Your task to perform on an android device: change alarm snooze length Image 0: 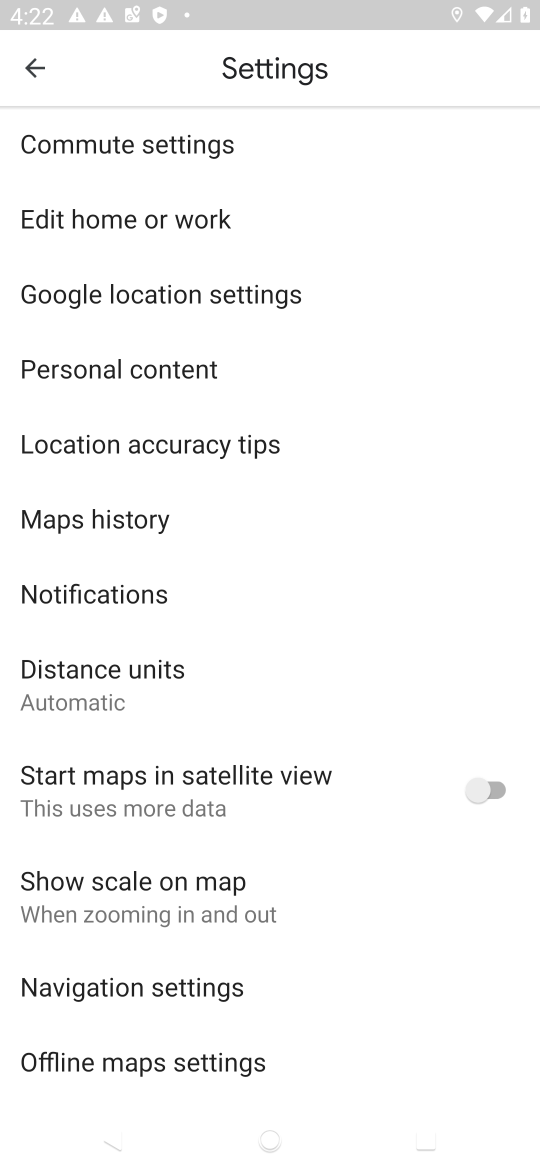
Step 0: press home button
Your task to perform on an android device: change alarm snooze length Image 1: 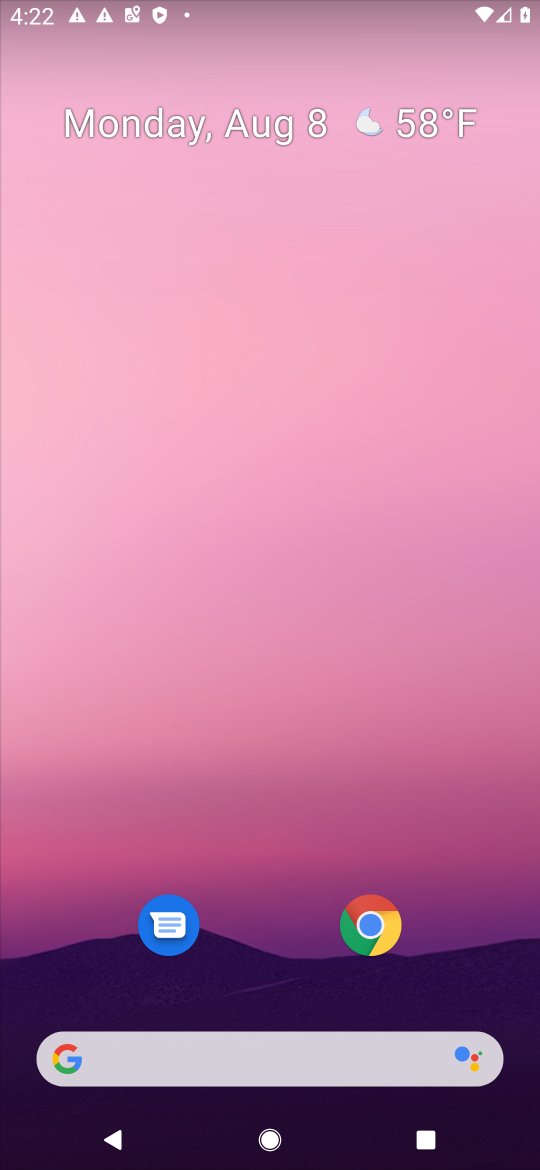
Step 1: drag from (274, 1010) to (195, 61)
Your task to perform on an android device: change alarm snooze length Image 2: 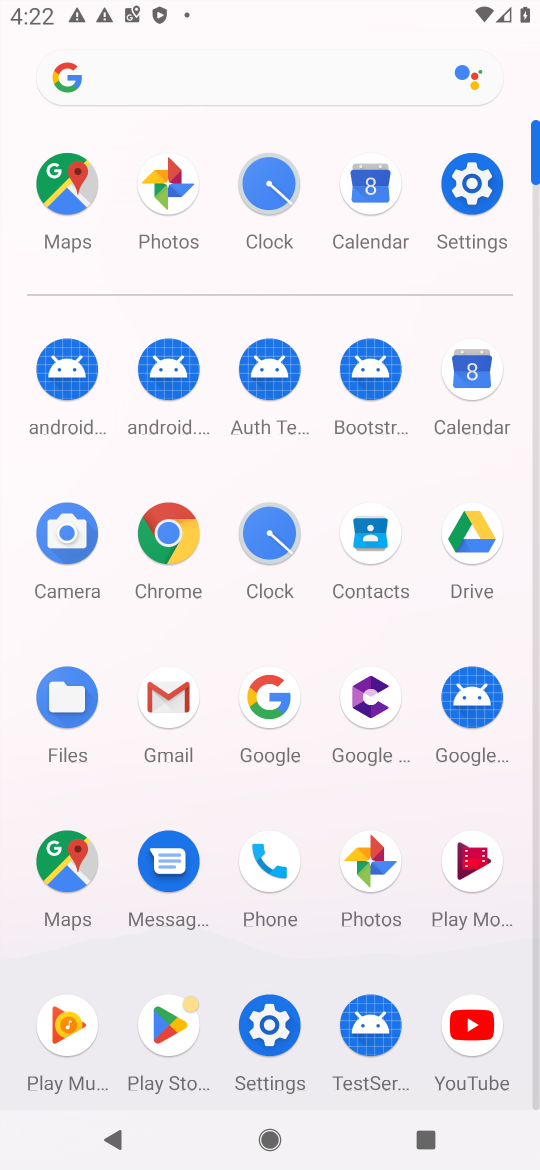
Step 2: click (269, 539)
Your task to perform on an android device: change alarm snooze length Image 3: 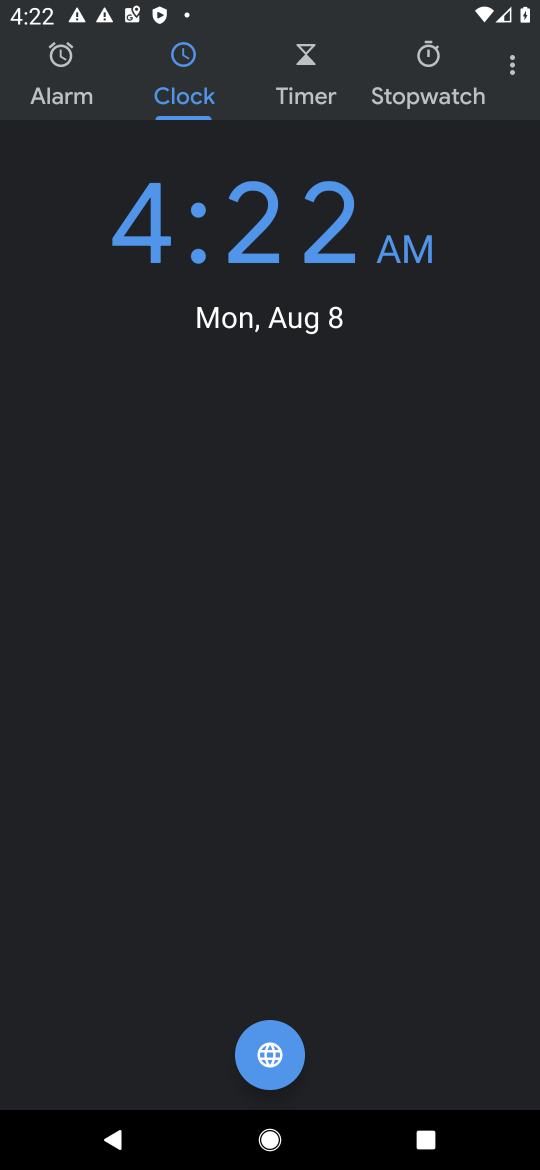
Step 3: click (513, 71)
Your task to perform on an android device: change alarm snooze length Image 4: 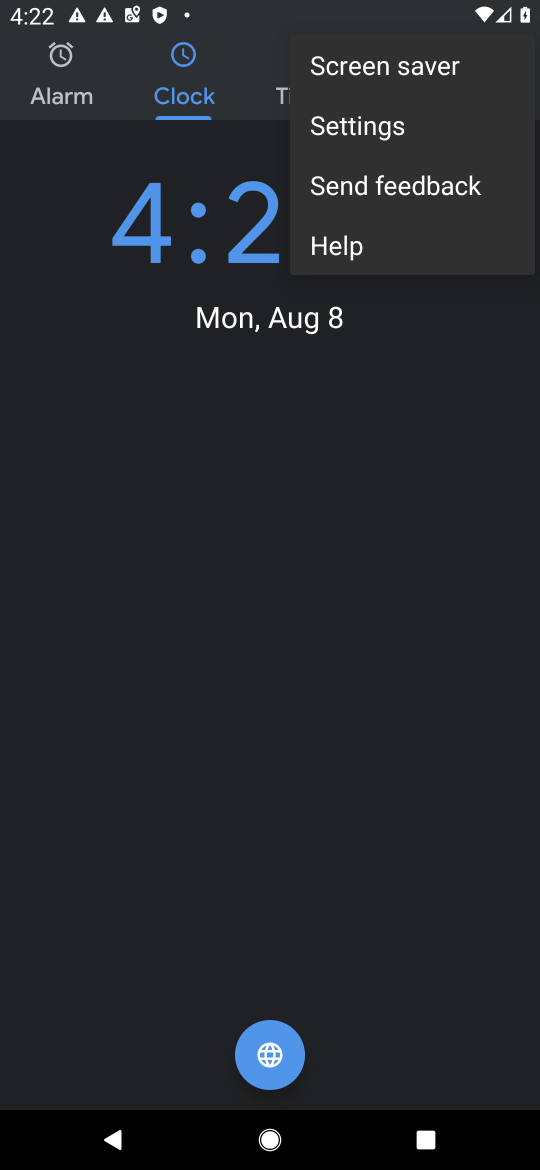
Step 4: click (387, 139)
Your task to perform on an android device: change alarm snooze length Image 5: 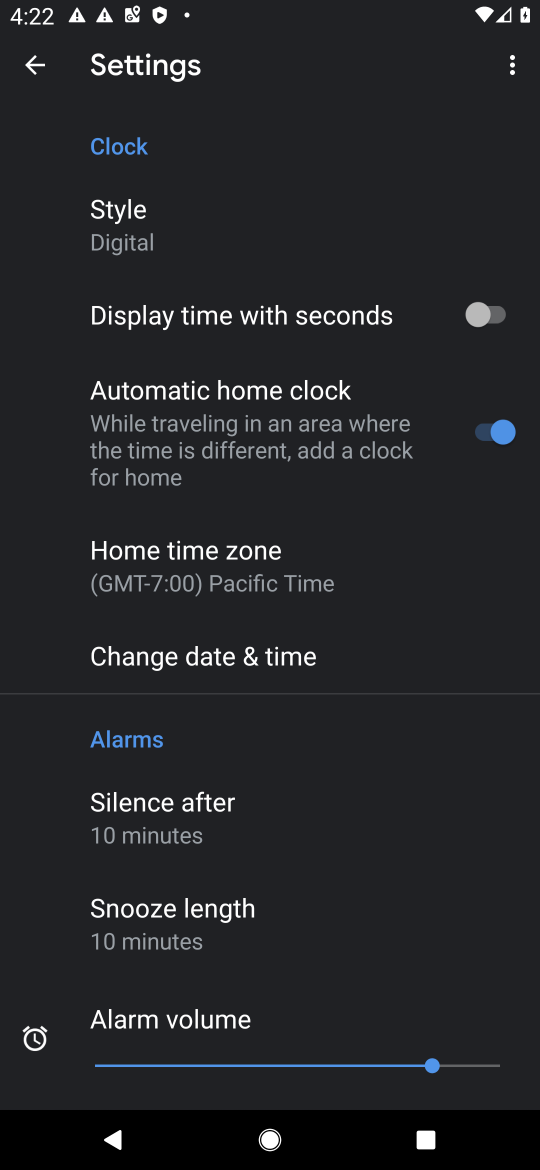
Step 5: click (162, 940)
Your task to perform on an android device: change alarm snooze length Image 6: 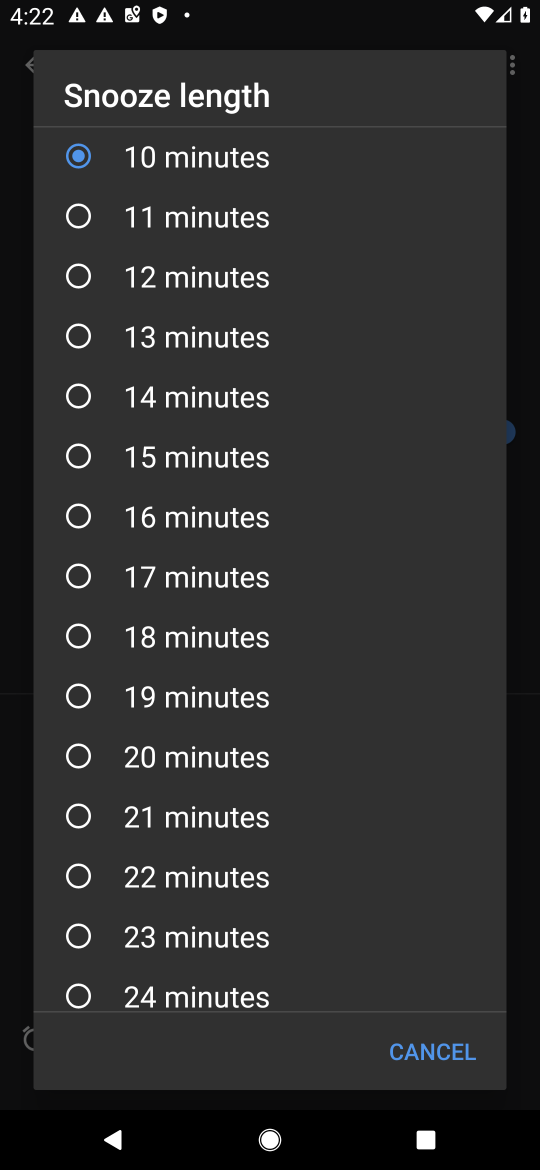
Step 6: click (94, 806)
Your task to perform on an android device: change alarm snooze length Image 7: 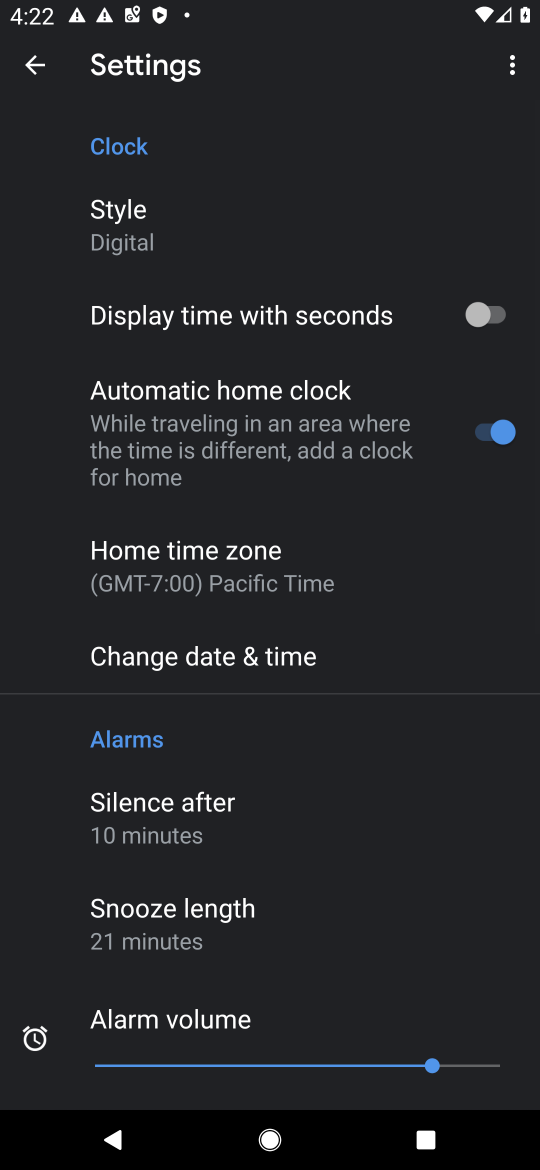
Step 7: task complete